Your task to perform on an android device: install app "Facebook" Image 0: 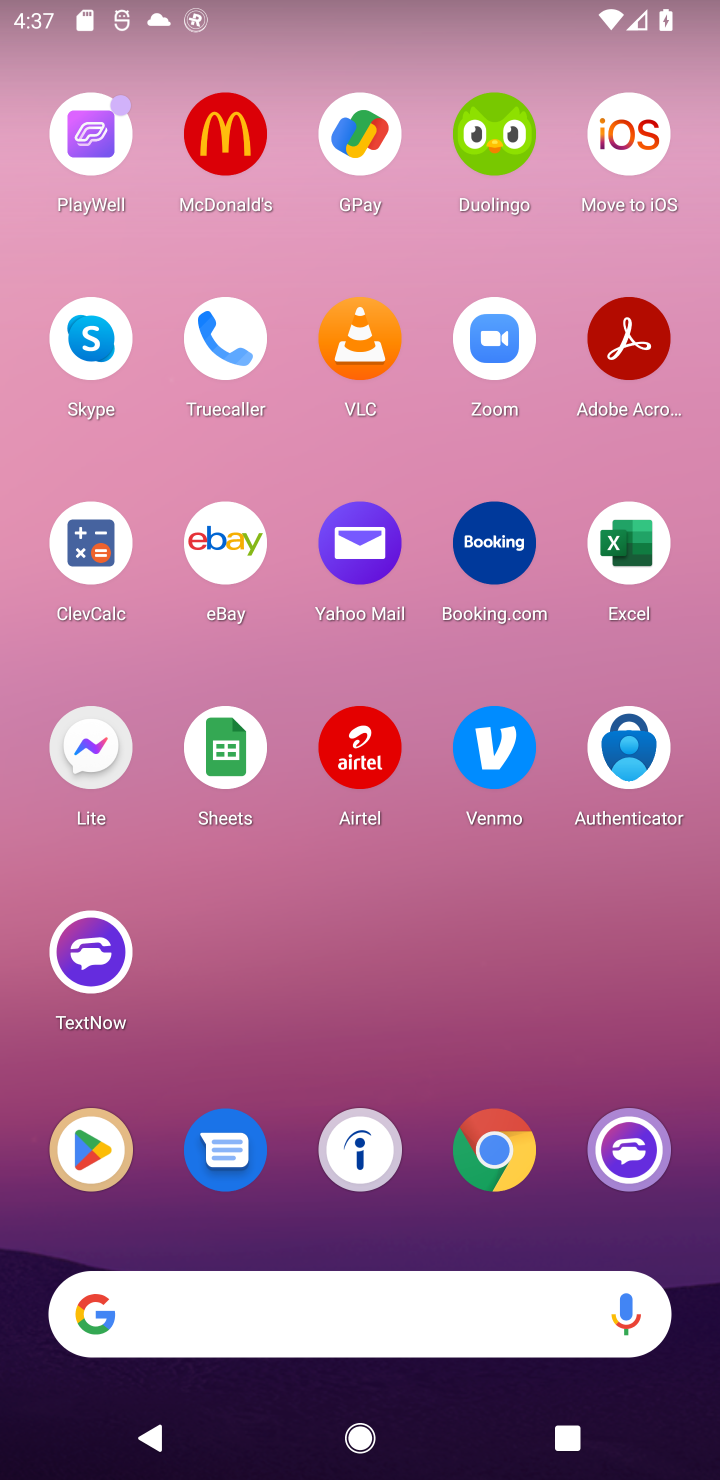
Step 0: drag from (297, 1081) to (363, 253)
Your task to perform on an android device: install app "Facebook" Image 1: 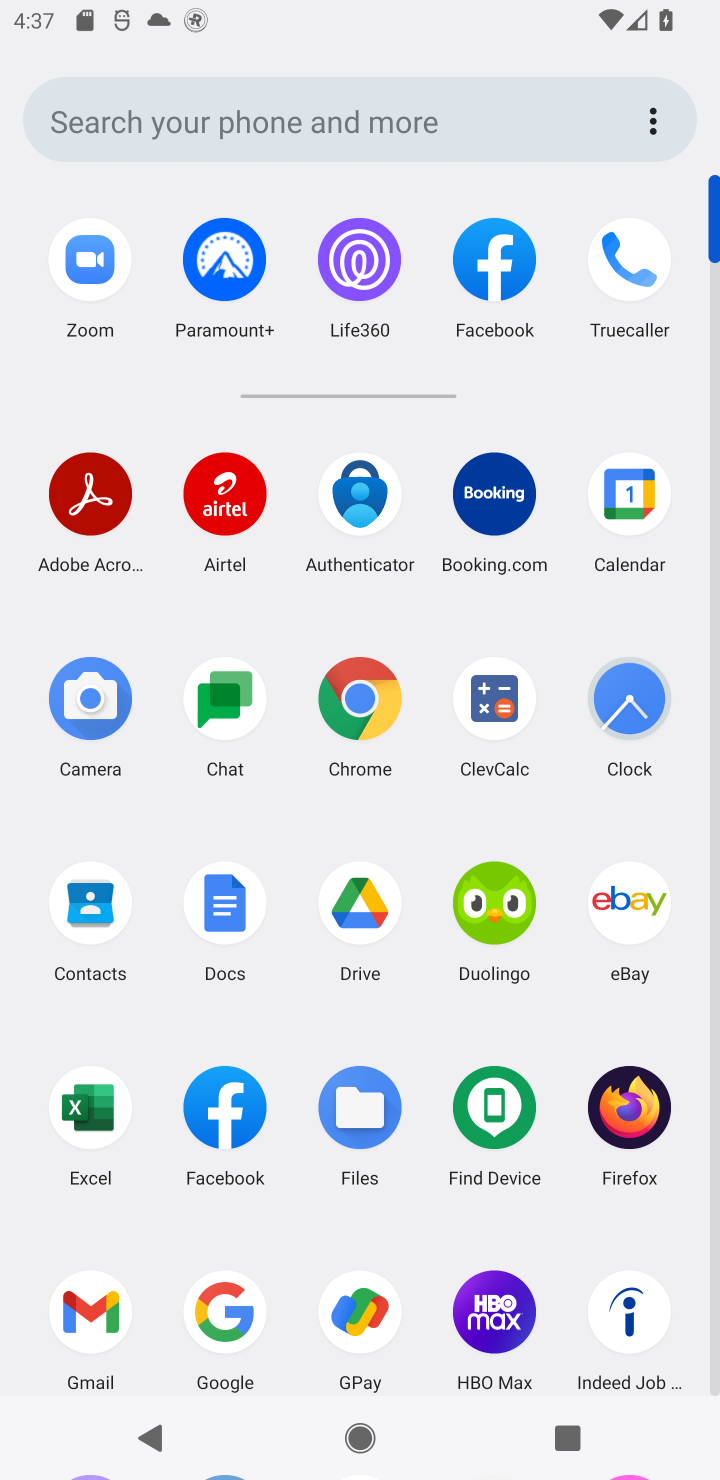
Step 1: click (511, 244)
Your task to perform on an android device: install app "Facebook" Image 2: 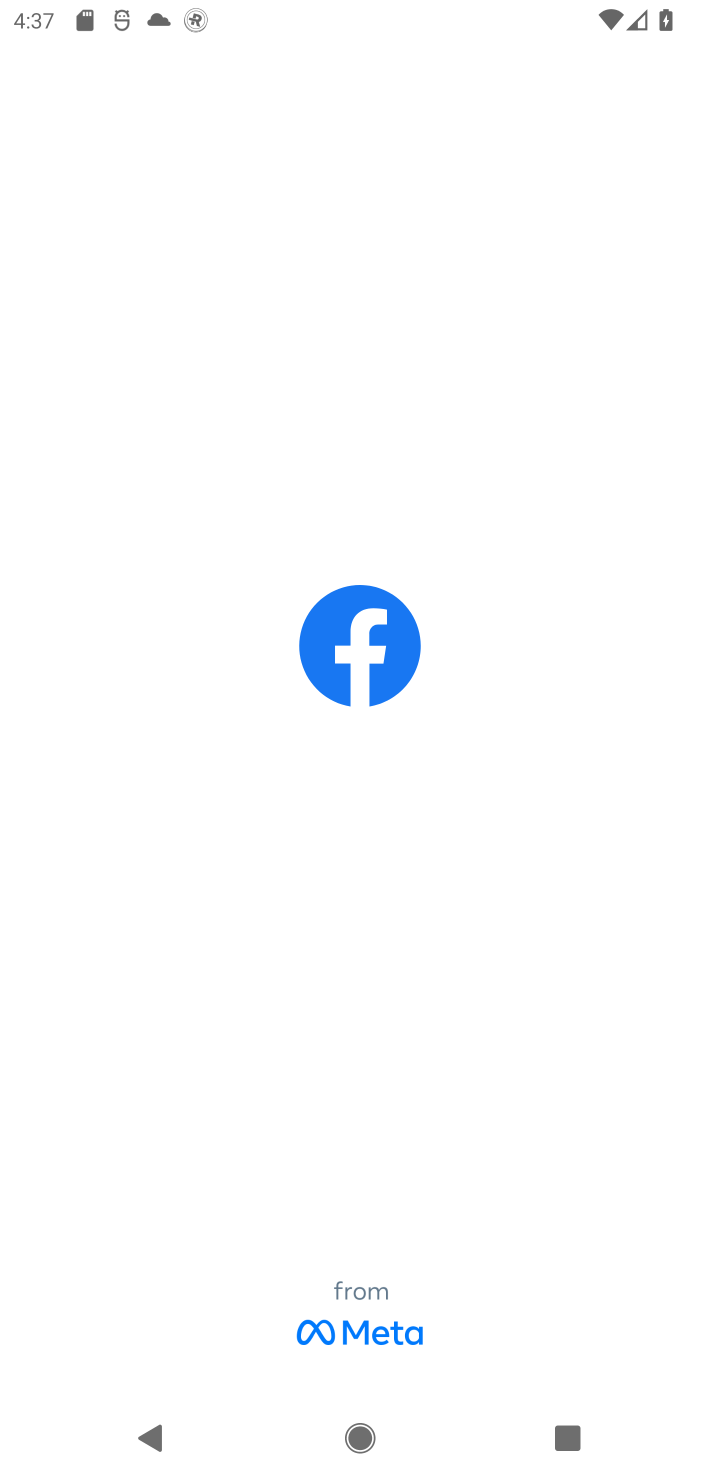
Step 2: task complete